Your task to perform on an android device: Go to Google Image 0: 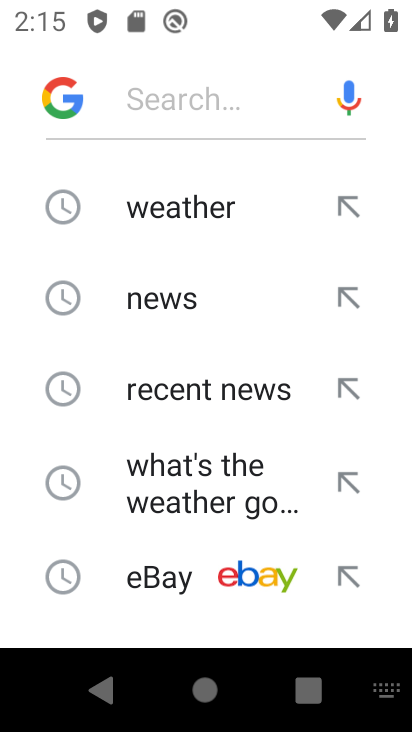
Step 0: press home button
Your task to perform on an android device: Go to Google Image 1: 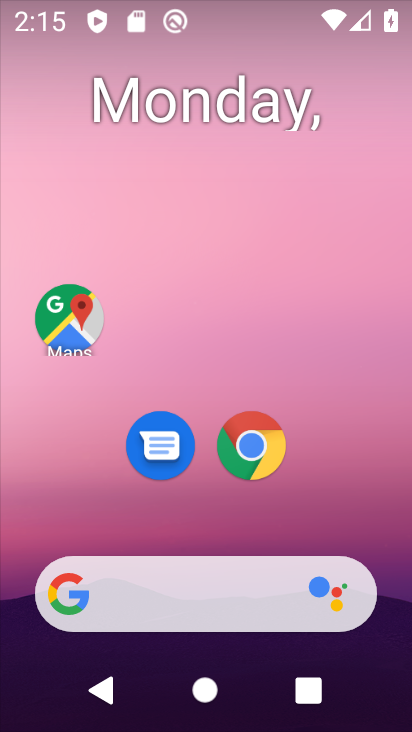
Step 1: click (188, 606)
Your task to perform on an android device: Go to Google Image 2: 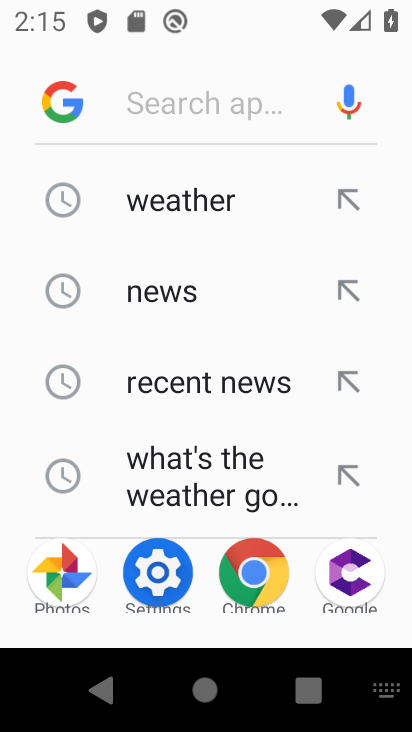
Step 2: task complete